Your task to perform on an android device: Open wifi settings Image 0: 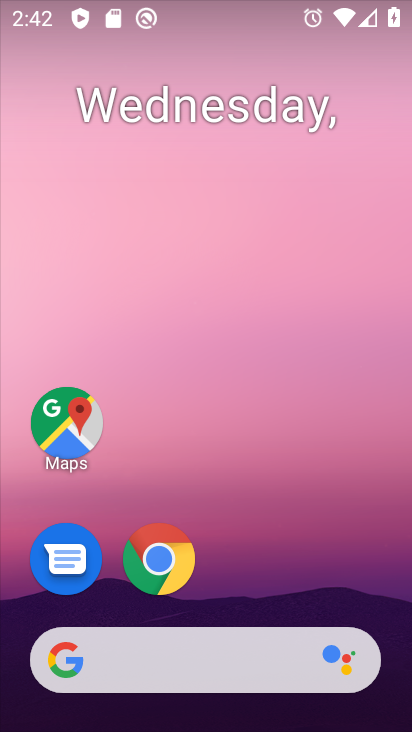
Step 0: drag from (132, 52) to (182, 615)
Your task to perform on an android device: Open wifi settings Image 1: 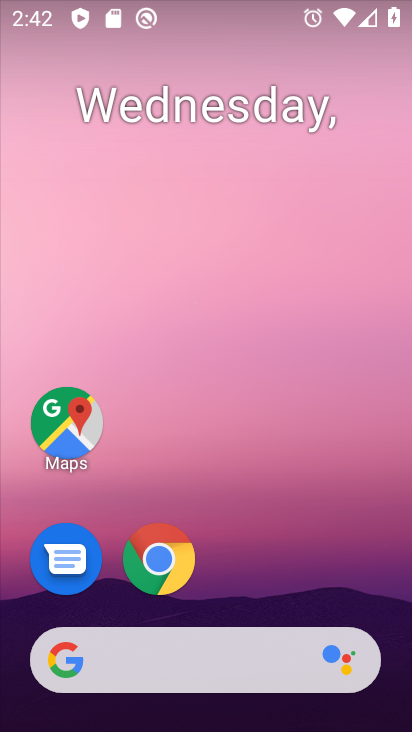
Step 1: drag from (151, 19) to (156, 414)
Your task to perform on an android device: Open wifi settings Image 2: 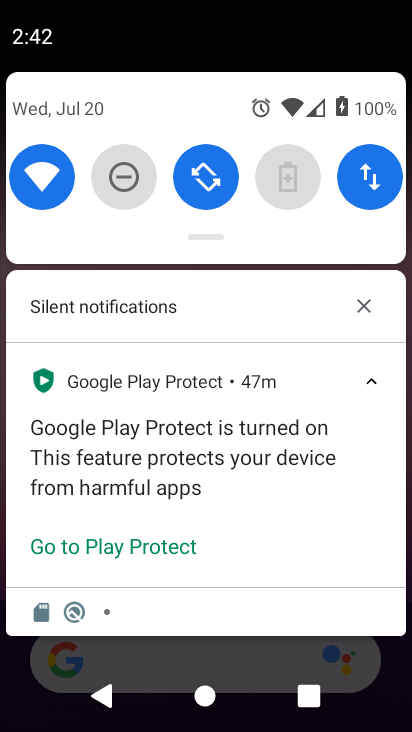
Step 2: click (38, 170)
Your task to perform on an android device: Open wifi settings Image 3: 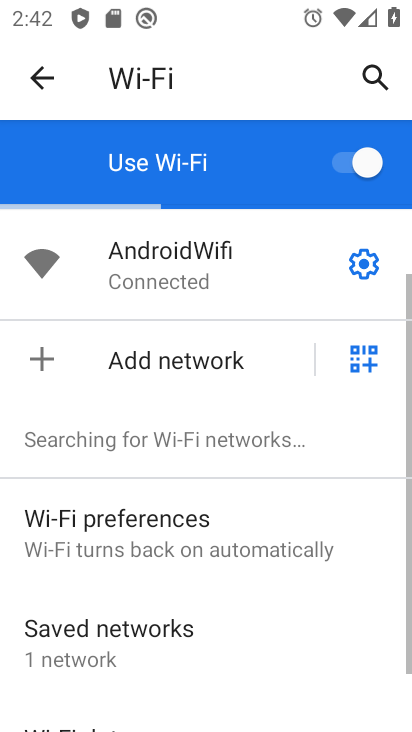
Step 3: click (38, 170)
Your task to perform on an android device: Open wifi settings Image 4: 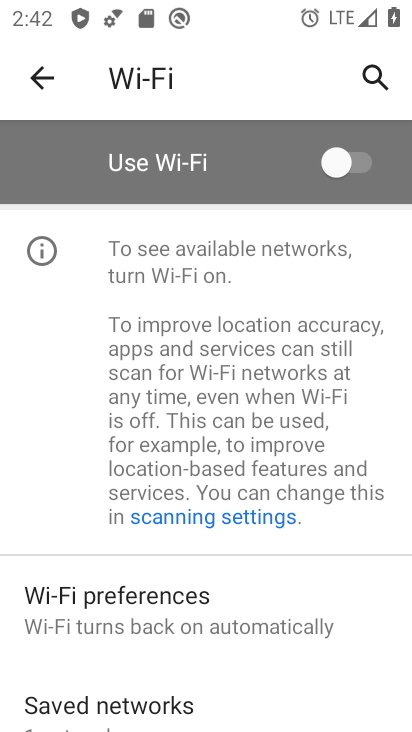
Step 4: task complete